Your task to perform on an android device: find which apps use the phone's location Image 0: 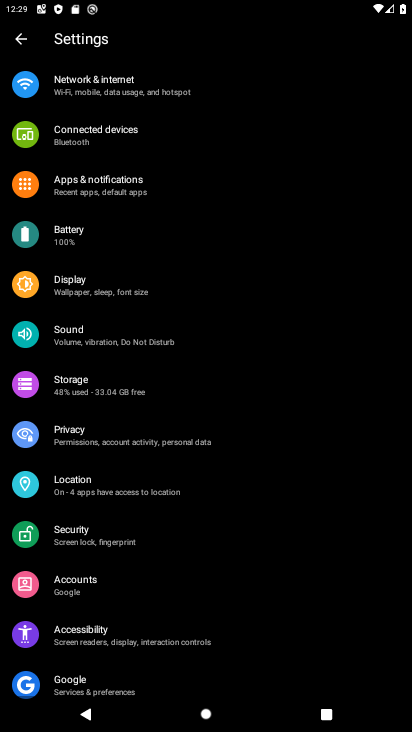
Step 0: press home button
Your task to perform on an android device: find which apps use the phone's location Image 1: 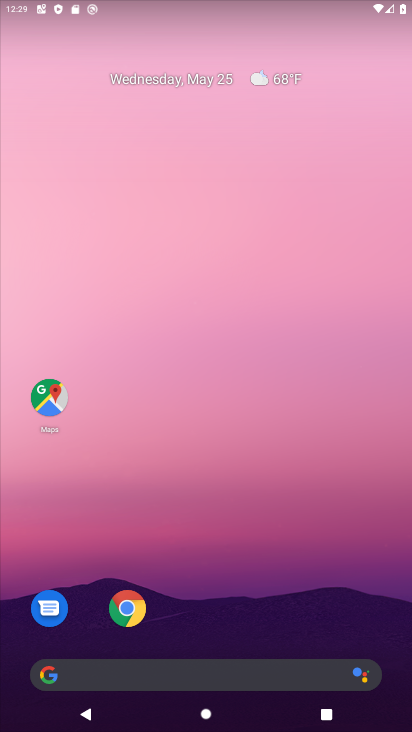
Step 1: drag from (270, 584) to (232, 152)
Your task to perform on an android device: find which apps use the phone's location Image 2: 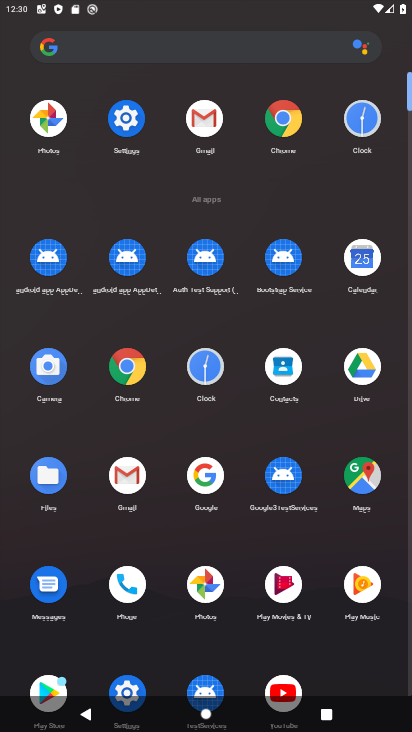
Step 2: click (124, 687)
Your task to perform on an android device: find which apps use the phone's location Image 3: 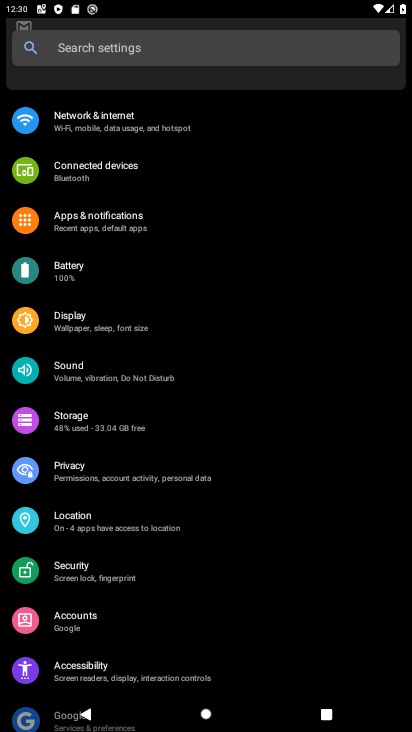
Step 3: click (112, 514)
Your task to perform on an android device: find which apps use the phone's location Image 4: 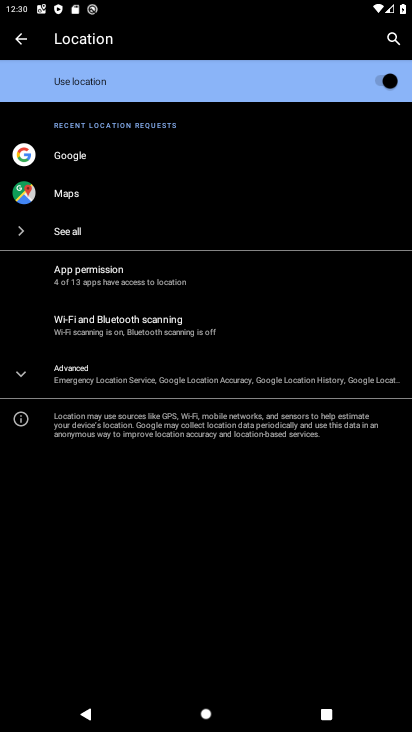
Step 4: click (154, 263)
Your task to perform on an android device: find which apps use the phone's location Image 5: 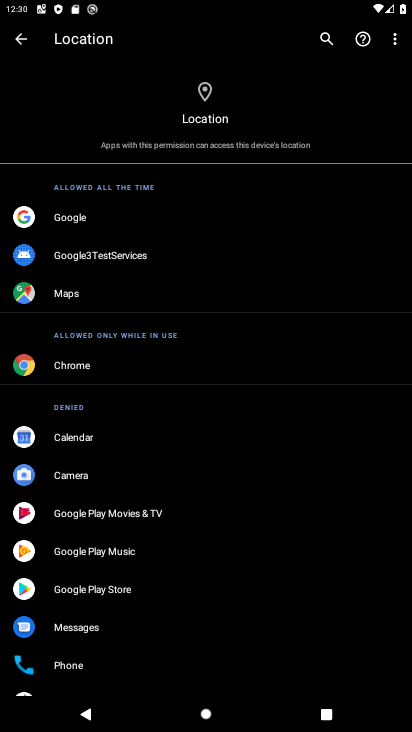
Step 5: task complete